Your task to perform on an android device: Empty the shopping cart on ebay. Search for usb-c to usb-a on ebay, select the first entry, and add it to the cart. Image 0: 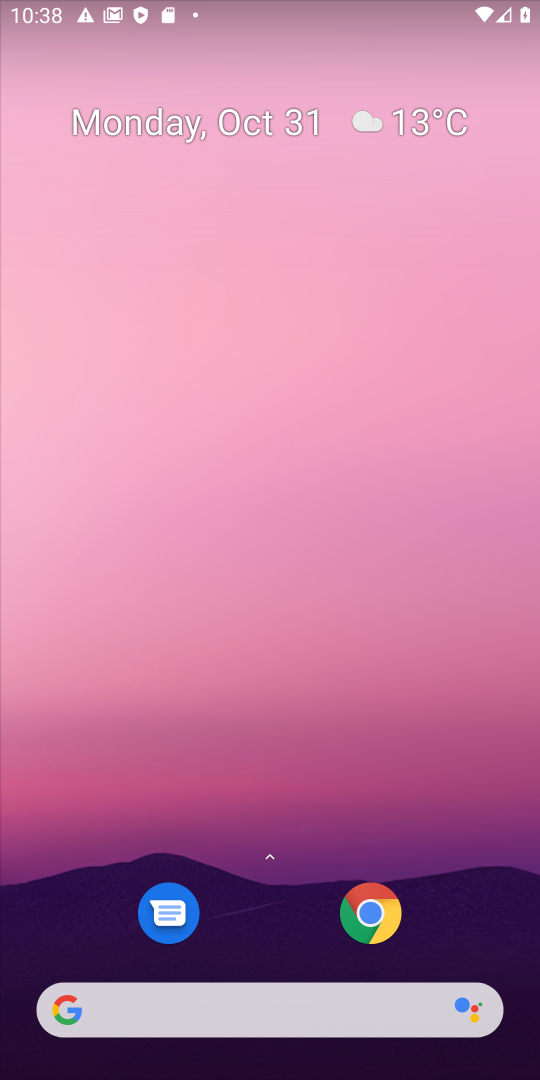
Step 0: click (212, 531)
Your task to perform on an android device: Empty the shopping cart on ebay. Search for usb-c to usb-a on ebay, select the first entry, and add it to the cart. Image 1: 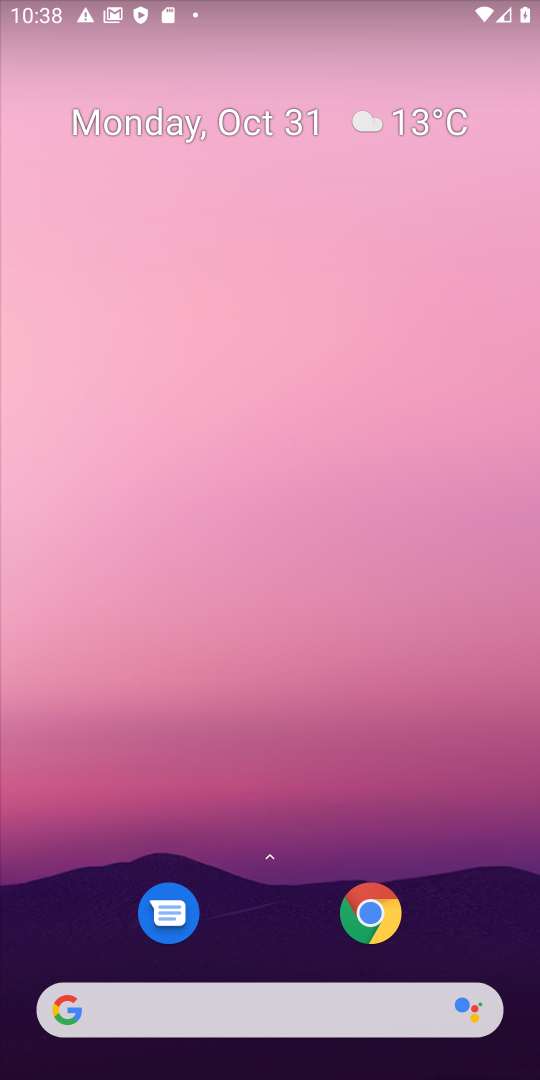
Step 1: click (212, 531)
Your task to perform on an android device: Empty the shopping cart on ebay. Search for usb-c to usb-a on ebay, select the first entry, and add it to the cart. Image 2: 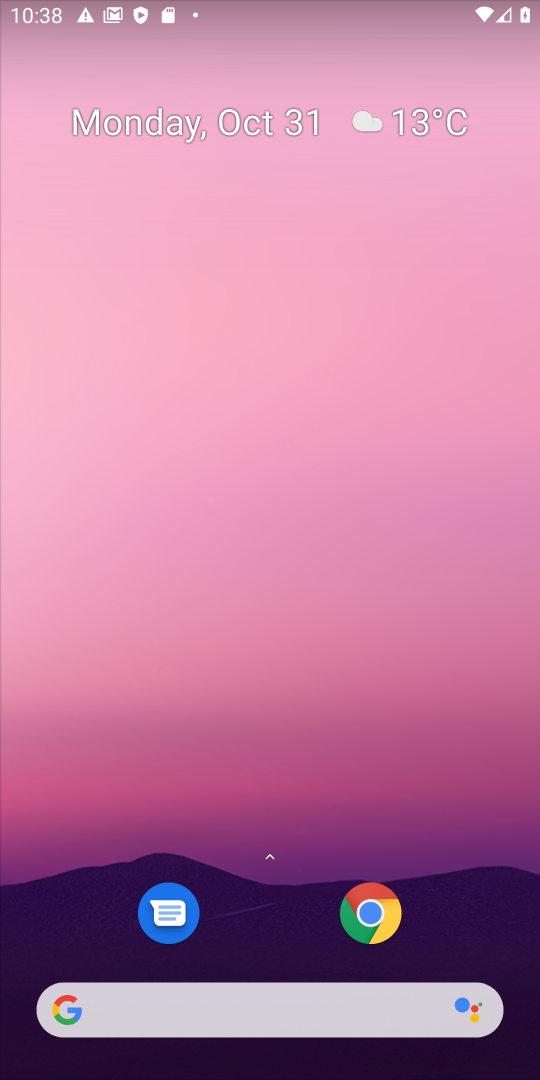
Step 2: click (212, 531)
Your task to perform on an android device: Empty the shopping cart on ebay. Search for usb-c to usb-a on ebay, select the first entry, and add it to the cart. Image 3: 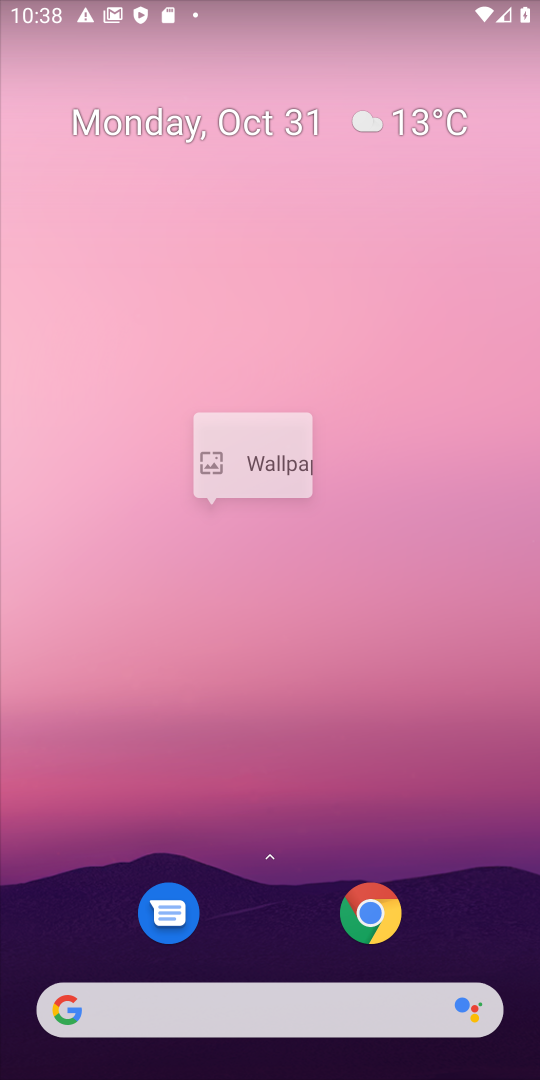
Step 3: click (212, 531)
Your task to perform on an android device: Empty the shopping cart on ebay. Search for usb-c to usb-a on ebay, select the first entry, and add it to the cart. Image 4: 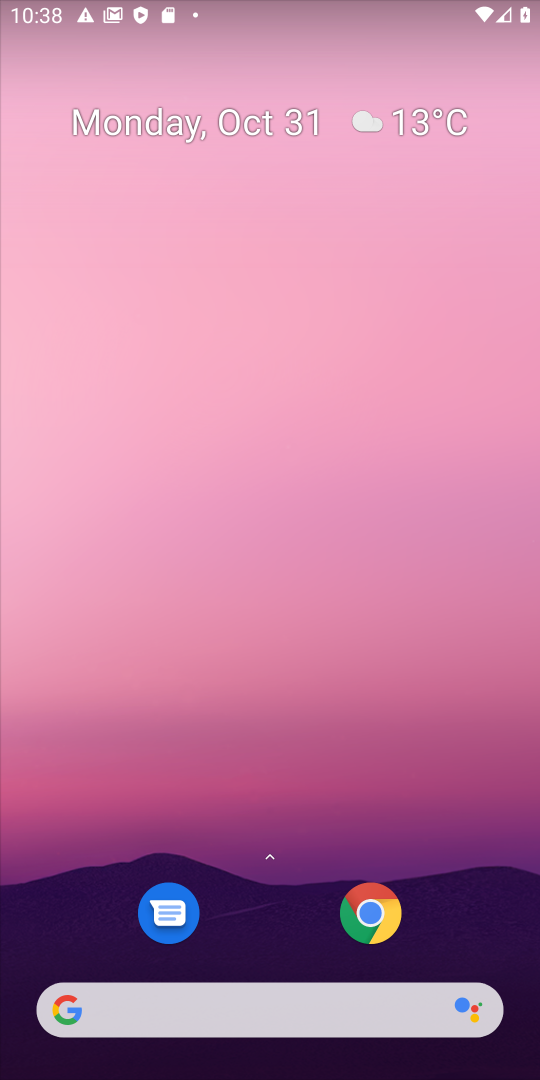
Step 4: click (212, 531)
Your task to perform on an android device: Empty the shopping cart on ebay. Search for usb-c to usb-a on ebay, select the first entry, and add it to the cart. Image 5: 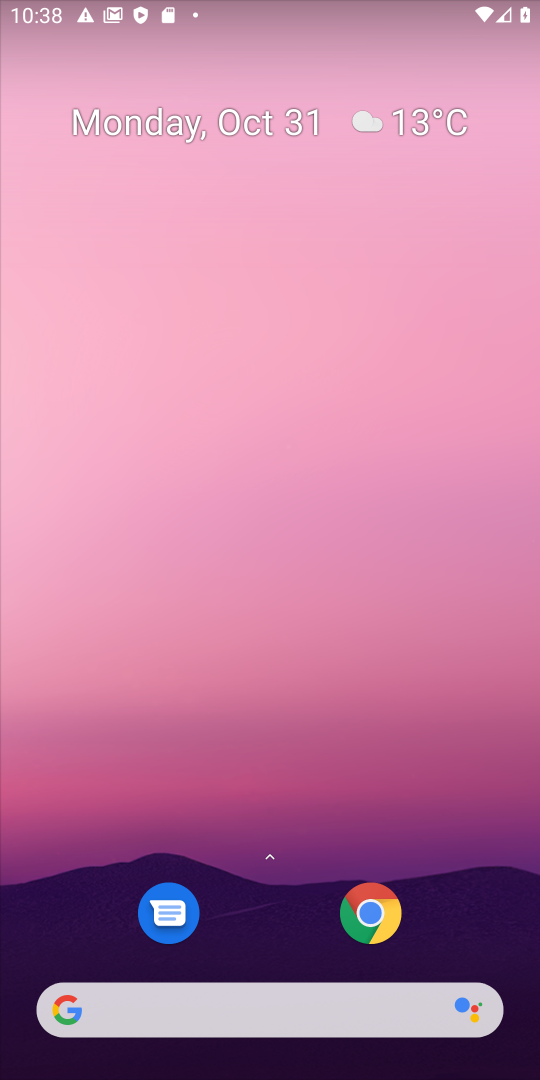
Step 5: click (212, 531)
Your task to perform on an android device: Empty the shopping cart on ebay. Search for usb-c to usb-a on ebay, select the first entry, and add it to the cart. Image 6: 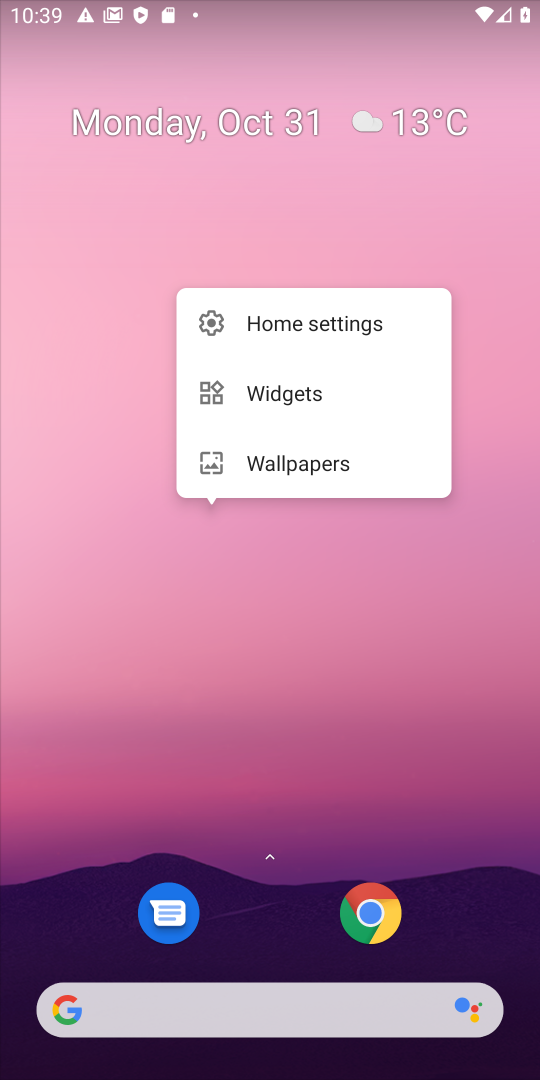
Step 6: click (212, 531)
Your task to perform on an android device: Empty the shopping cart on ebay. Search for usb-c to usb-a on ebay, select the first entry, and add it to the cart. Image 7: 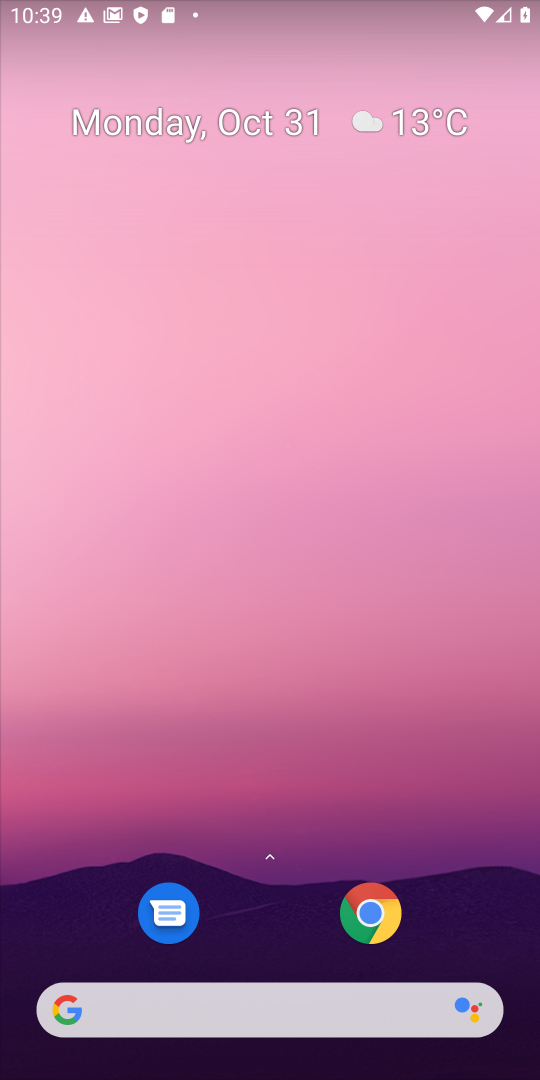
Step 7: click (210, 972)
Your task to perform on an android device: Empty the shopping cart on ebay. Search for usb-c to usb-a on ebay, select the first entry, and add it to the cart. Image 8: 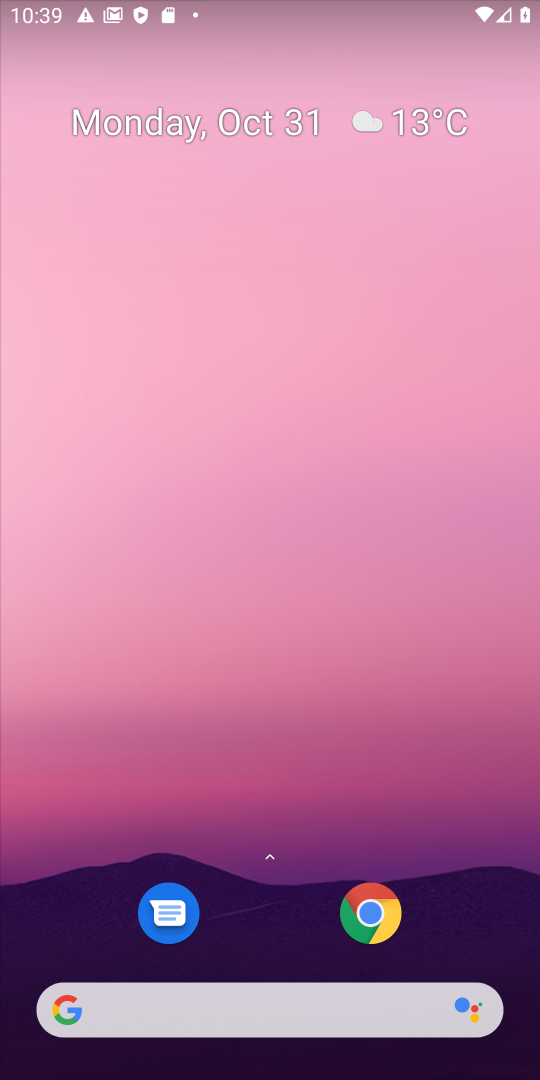
Step 8: click (193, 994)
Your task to perform on an android device: Empty the shopping cart on ebay. Search for usb-c to usb-a on ebay, select the first entry, and add it to the cart. Image 9: 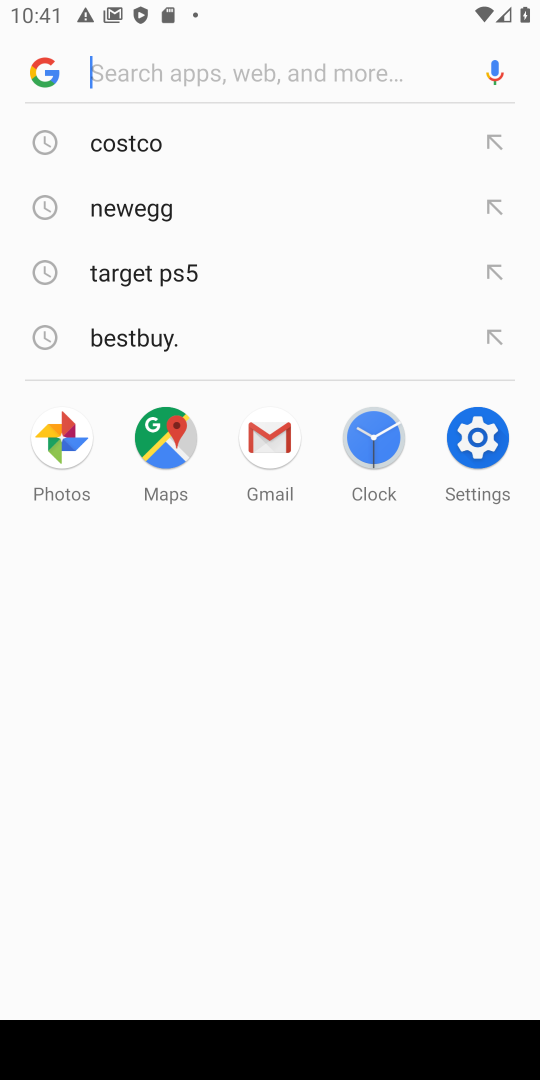
Step 9: type "ebay"
Your task to perform on an android device: Empty the shopping cart on ebay. Search for usb-c to usb-a on ebay, select the first entry, and add it to the cart. Image 10: 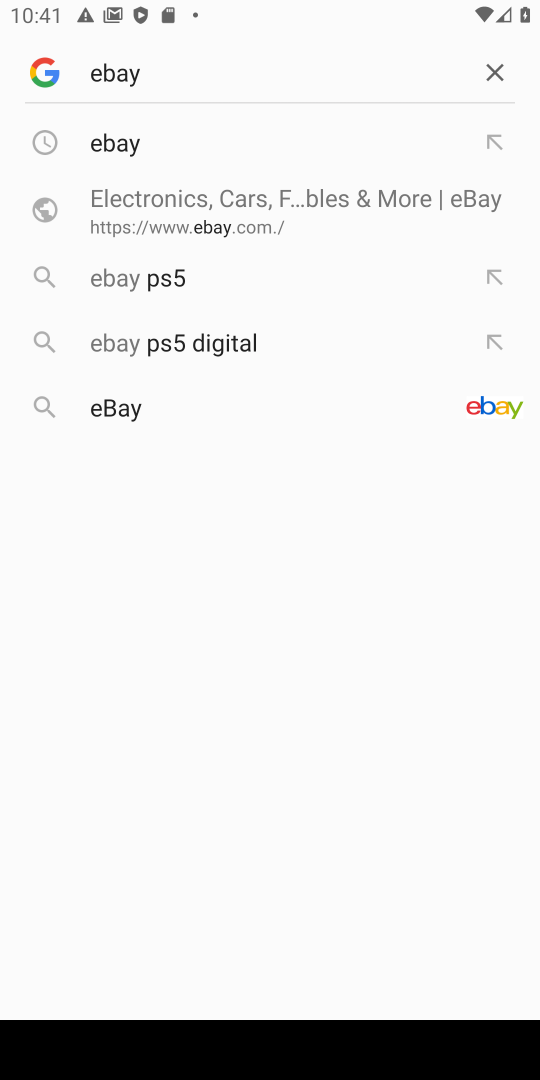
Step 10: click (145, 164)
Your task to perform on an android device: Empty the shopping cart on ebay. Search for usb-c to usb-a on ebay, select the first entry, and add it to the cart. Image 11: 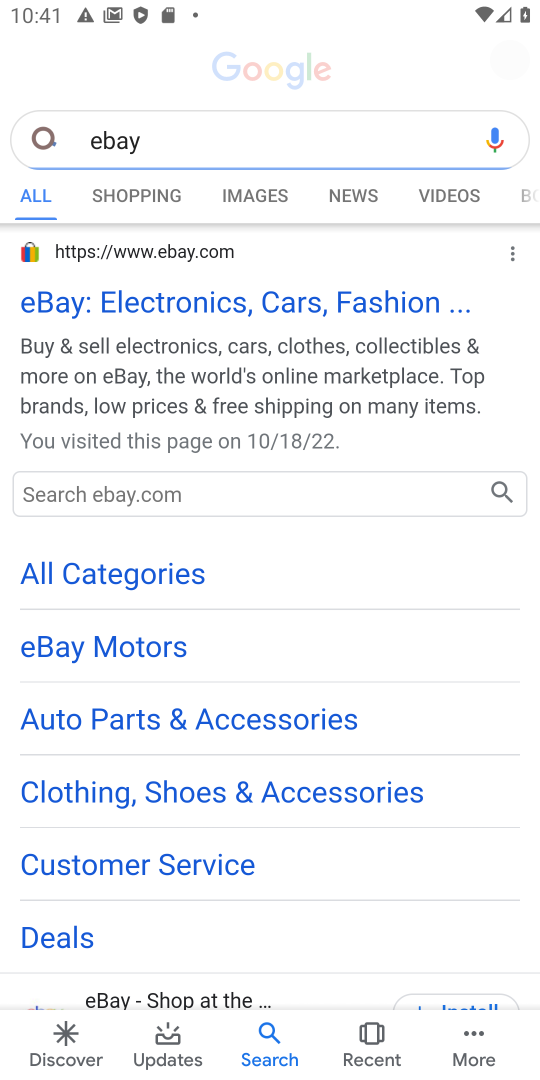
Step 11: task complete